Your task to perform on an android device: Show me recent news Image 0: 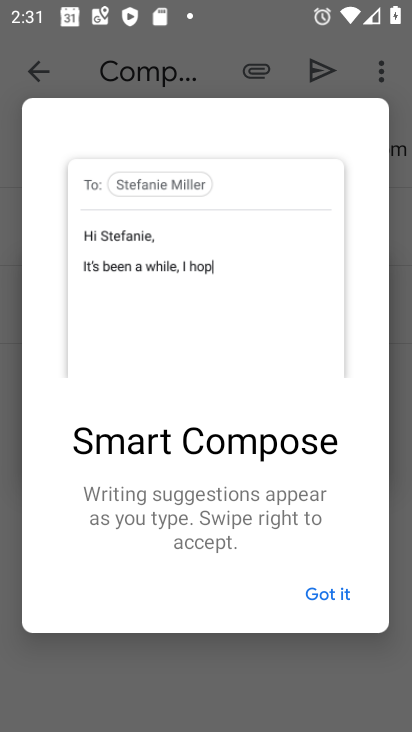
Step 0: press home button
Your task to perform on an android device: Show me recent news Image 1: 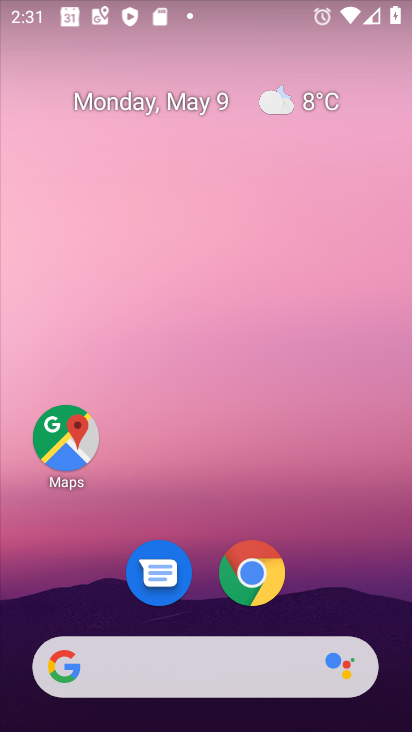
Step 1: click (72, 670)
Your task to perform on an android device: Show me recent news Image 2: 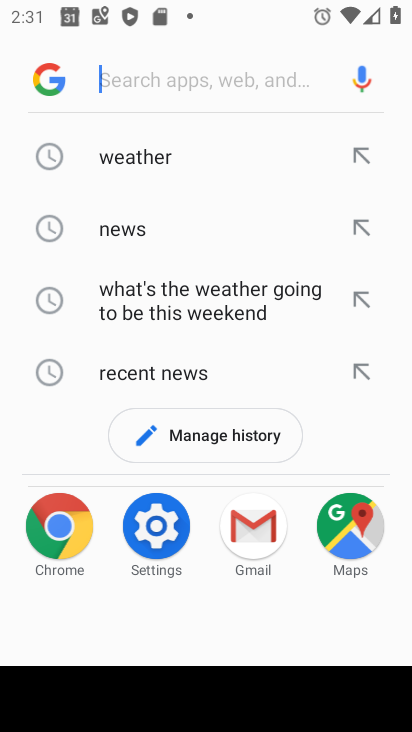
Step 2: click (149, 380)
Your task to perform on an android device: Show me recent news Image 3: 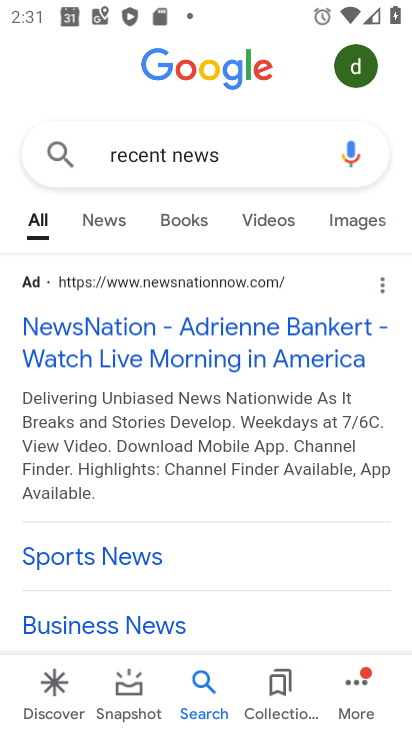
Step 3: task complete